Your task to perform on an android device: set the timer Image 0: 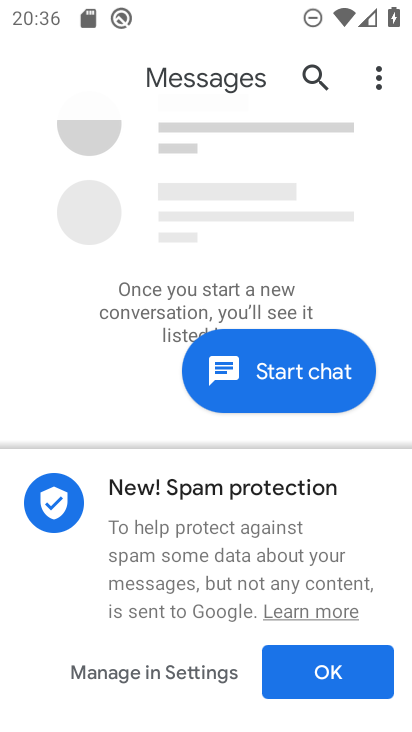
Step 0: press home button
Your task to perform on an android device: set the timer Image 1: 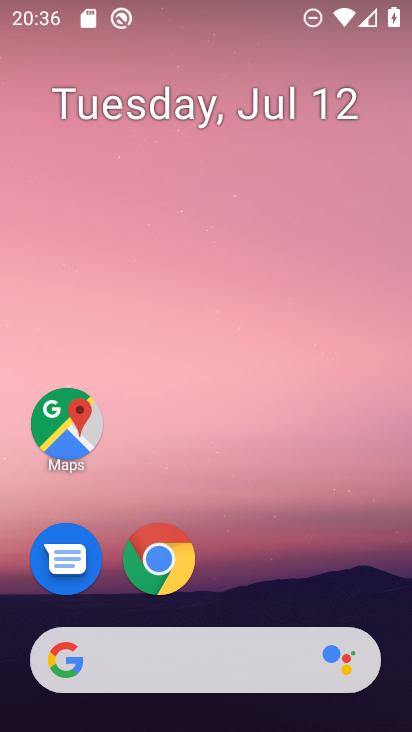
Step 1: drag from (371, 562) to (354, 178)
Your task to perform on an android device: set the timer Image 2: 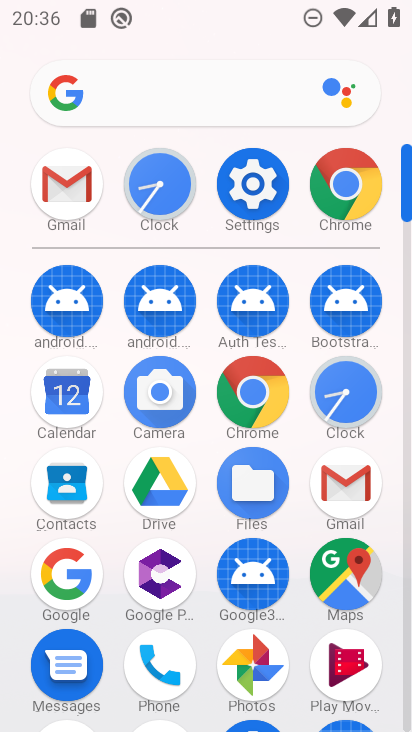
Step 2: click (353, 394)
Your task to perform on an android device: set the timer Image 3: 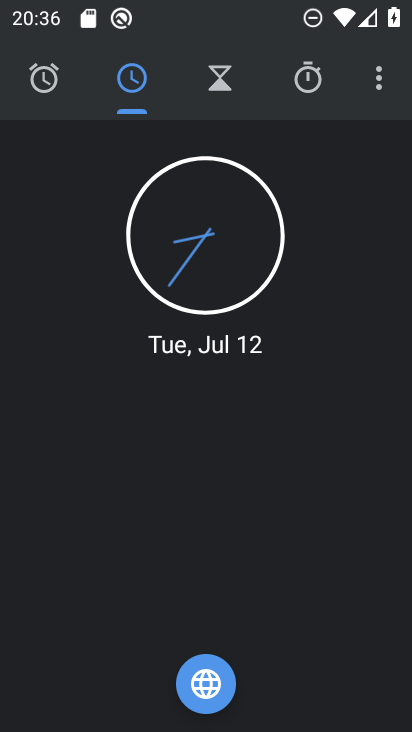
Step 3: click (229, 80)
Your task to perform on an android device: set the timer Image 4: 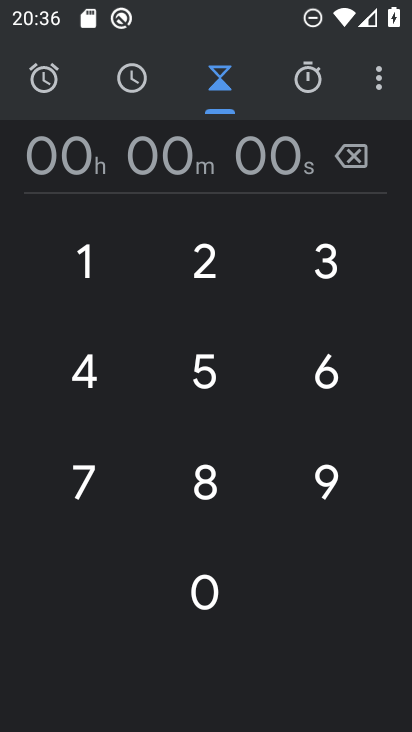
Step 4: click (213, 377)
Your task to perform on an android device: set the timer Image 5: 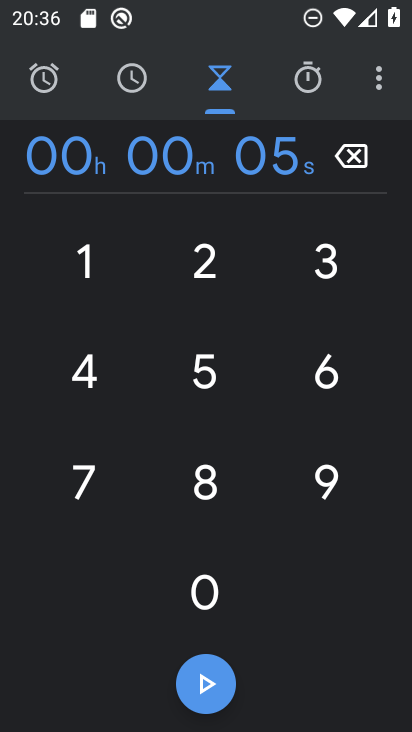
Step 5: task complete